Your task to perform on an android device: check google app version Image 0: 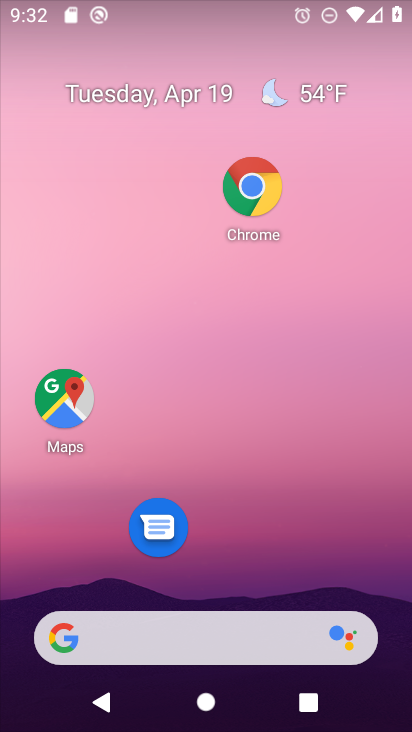
Step 0: drag from (304, 573) to (294, 146)
Your task to perform on an android device: check google app version Image 1: 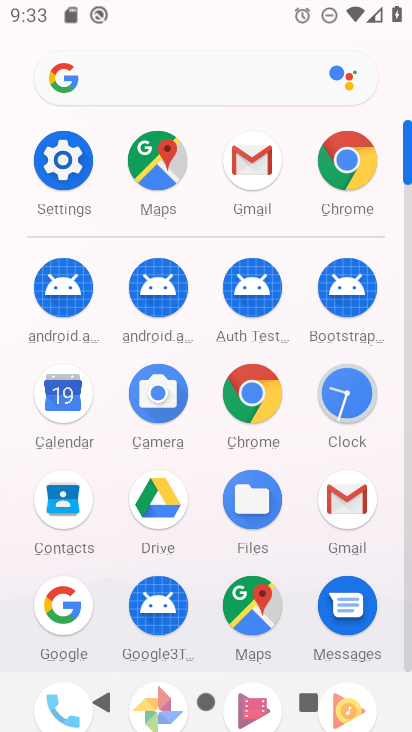
Step 1: click (62, 149)
Your task to perform on an android device: check google app version Image 2: 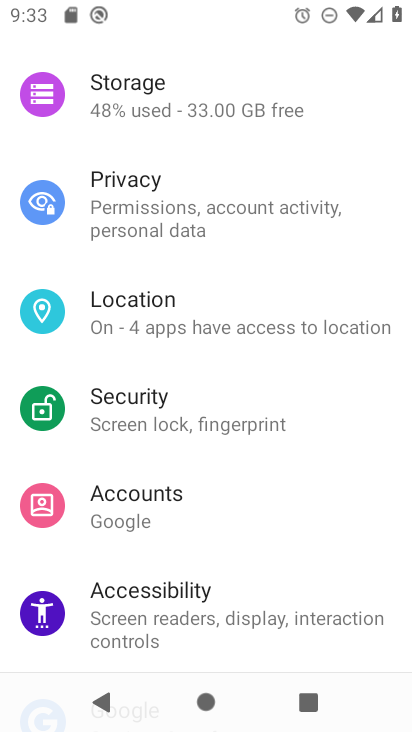
Step 2: click (68, 143)
Your task to perform on an android device: check google app version Image 3: 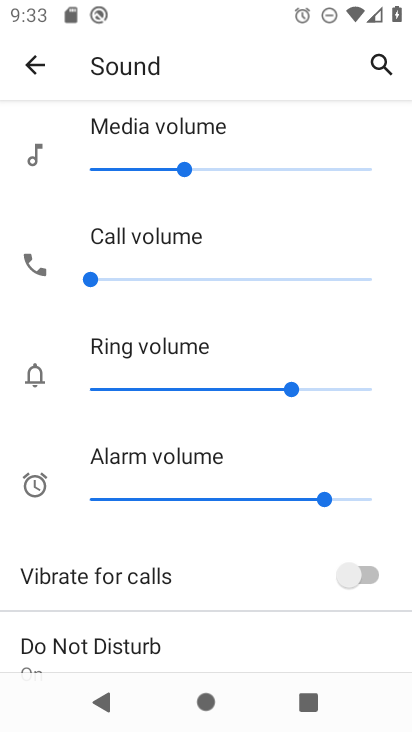
Step 3: click (31, 57)
Your task to perform on an android device: check google app version Image 4: 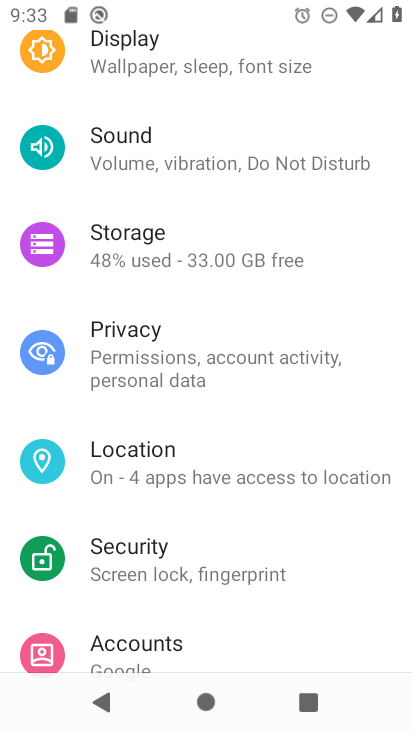
Step 4: drag from (210, 134) to (197, 631)
Your task to perform on an android device: check google app version Image 5: 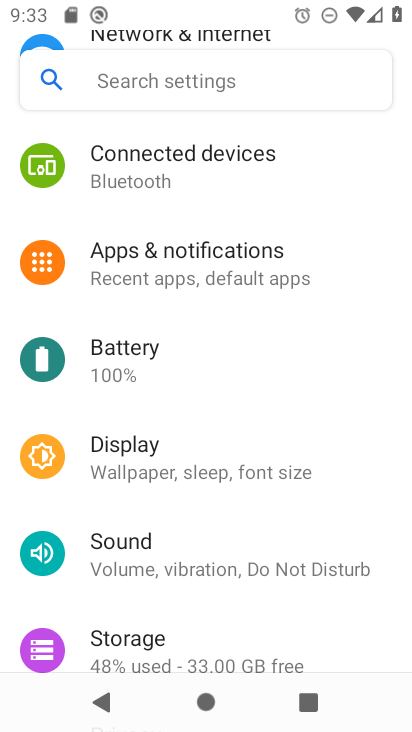
Step 5: click (213, 251)
Your task to perform on an android device: check google app version Image 6: 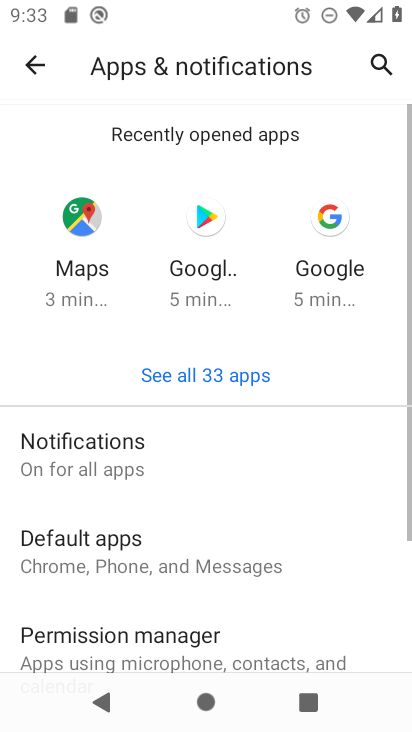
Step 6: click (209, 379)
Your task to perform on an android device: check google app version Image 7: 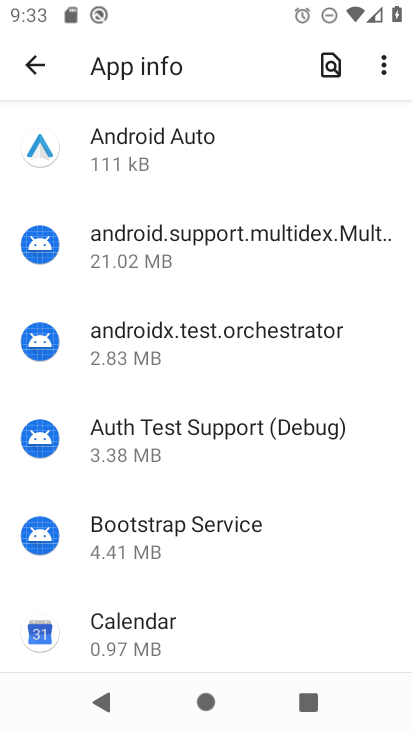
Step 7: drag from (218, 559) to (290, 164)
Your task to perform on an android device: check google app version Image 8: 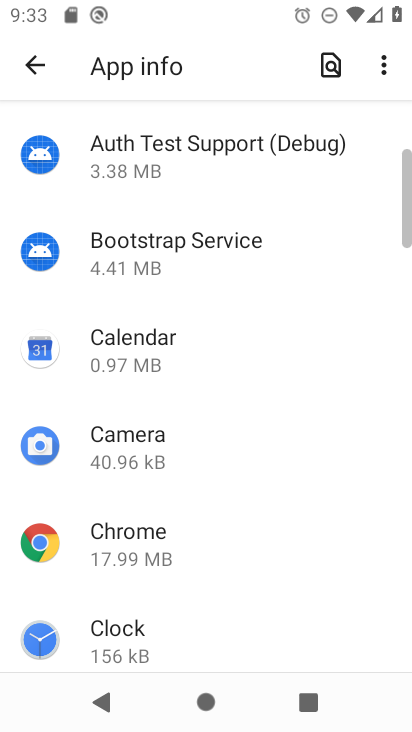
Step 8: drag from (182, 642) to (294, 81)
Your task to perform on an android device: check google app version Image 9: 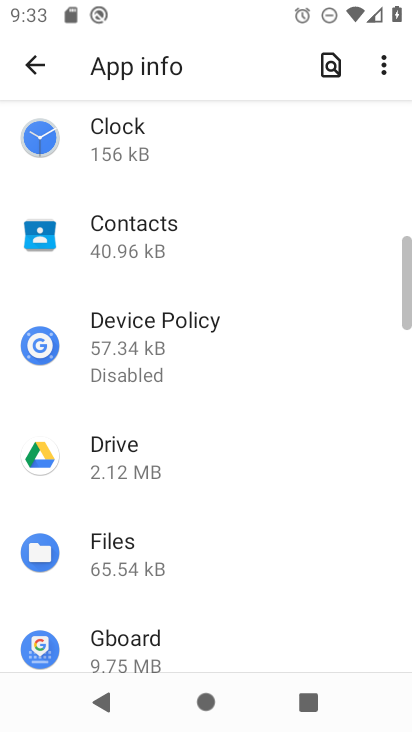
Step 9: drag from (205, 624) to (264, 176)
Your task to perform on an android device: check google app version Image 10: 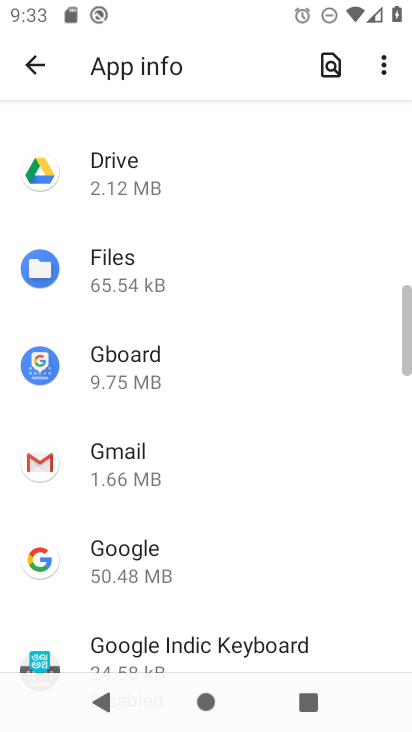
Step 10: click (154, 559)
Your task to perform on an android device: check google app version Image 11: 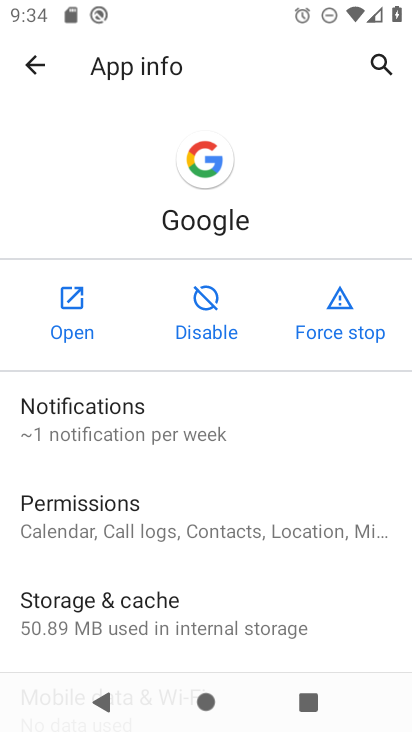
Step 11: drag from (194, 599) to (260, 126)
Your task to perform on an android device: check google app version Image 12: 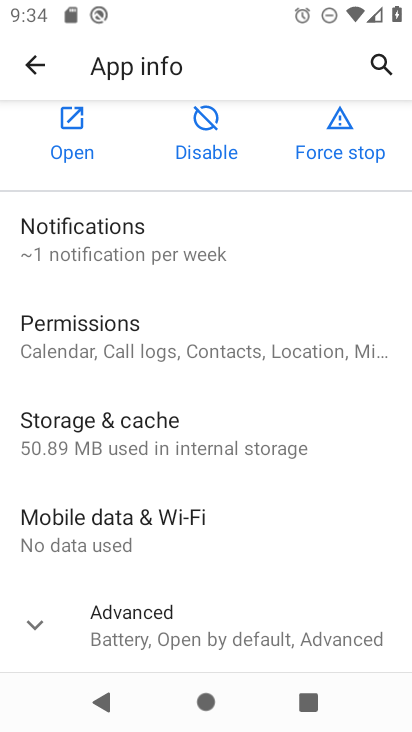
Step 12: click (138, 614)
Your task to perform on an android device: check google app version Image 13: 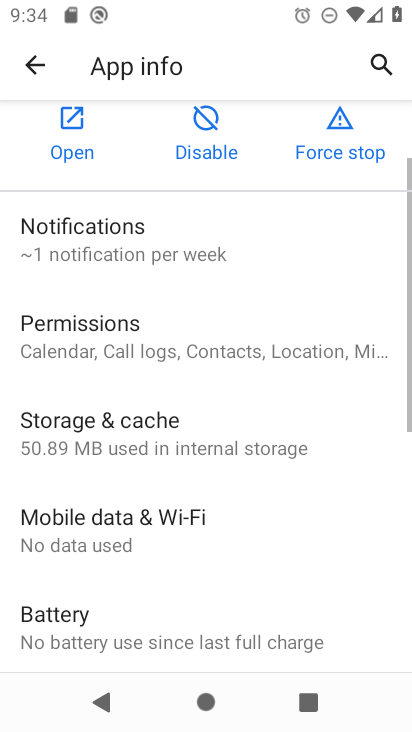
Step 13: task complete